Your task to perform on an android device: Search for pizza restaurants on Maps Image 0: 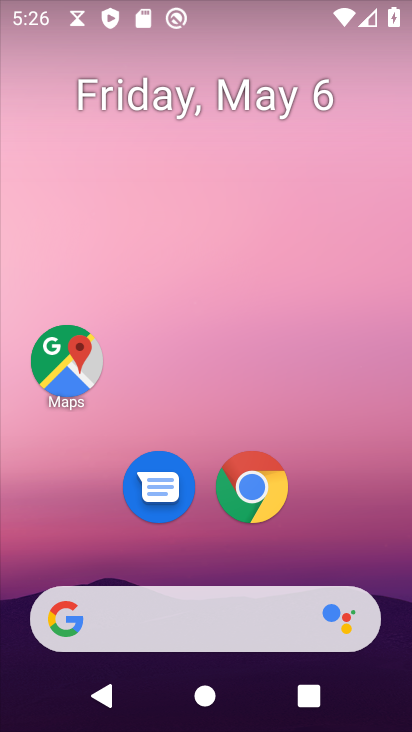
Step 0: click (68, 363)
Your task to perform on an android device: Search for pizza restaurants on Maps Image 1: 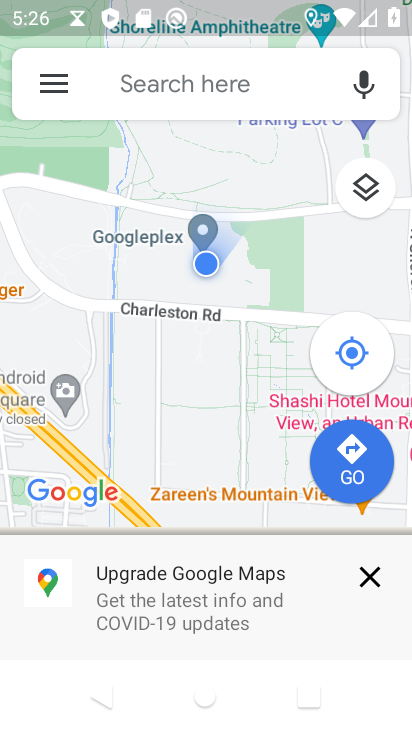
Step 1: click (204, 99)
Your task to perform on an android device: Search for pizza restaurants on Maps Image 2: 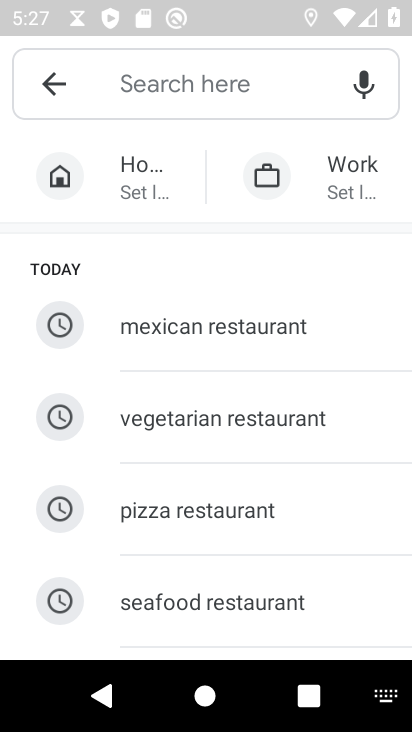
Step 2: type "pizza restaurants"
Your task to perform on an android device: Search for pizza restaurants on Maps Image 3: 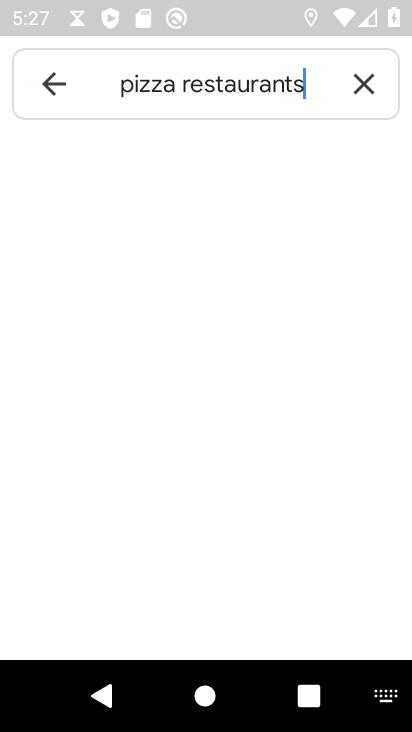
Step 3: type ""
Your task to perform on an android device: Search for pizza restaurants on Maps Image 4: 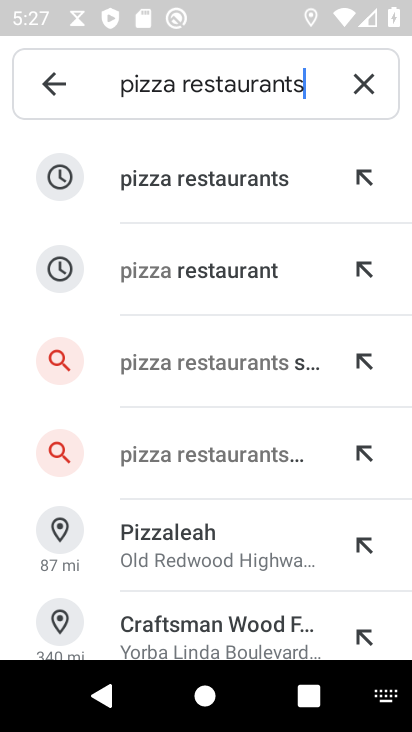
Step 4: click (204, 182)
Your task to perform on an android device: Search for pizza restaurants on Maps Image 5: 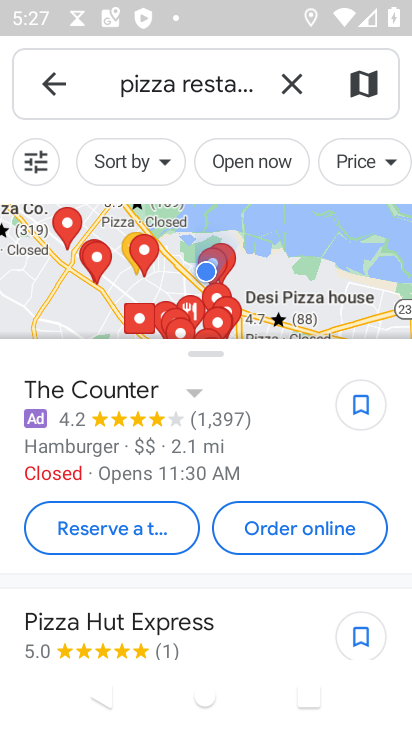
Step 5: task complete